Your task to perform on an android device: toggle airplane mode Image 0: 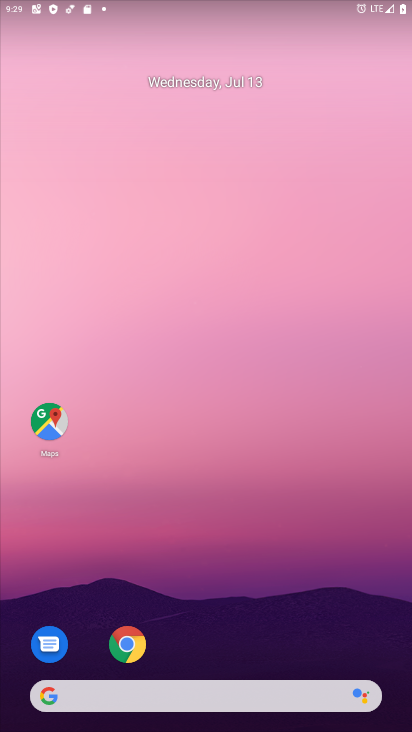
Step 0: drag from (235, 730) to (211, 62)
Your task to perform on an android device: toggle airplane mode Image 1: 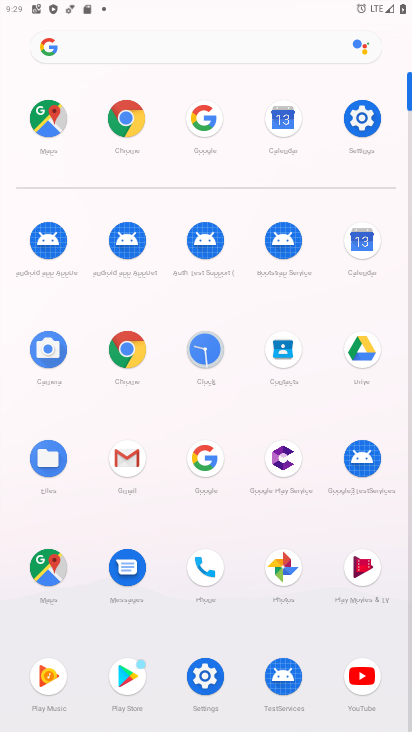
Step 1: click (361, 117)
Your task to perform on an android device: toggle airplane mode Image 2: 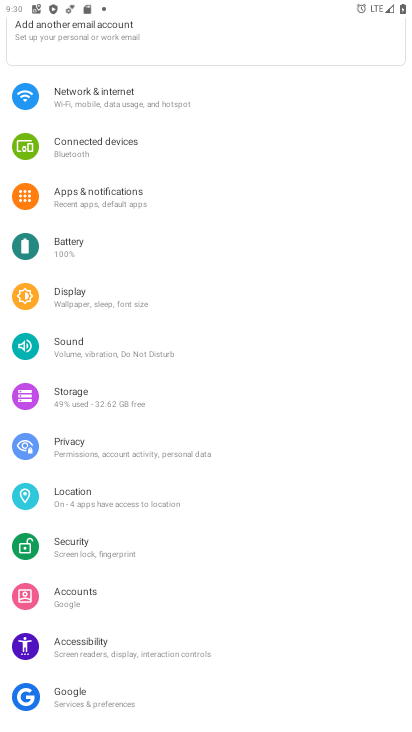
Step 2: click (89, 103)
Your task to perform on an android device: toggle airplane mode Image 3: 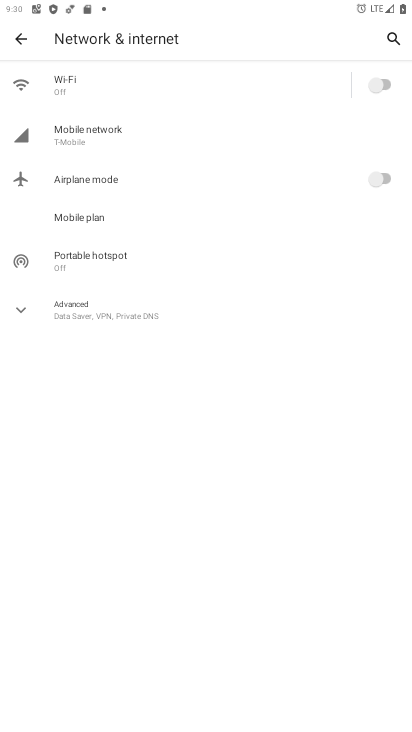
Step 3: click (384, 175)
Your task to perform on an android device: toggle airplane mode Image 4: 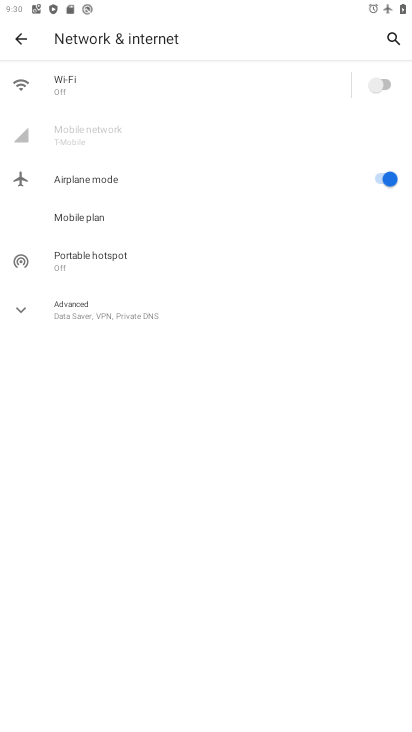
Step 4: task complete